Your task to perform on an android device: turn off location Image 0: 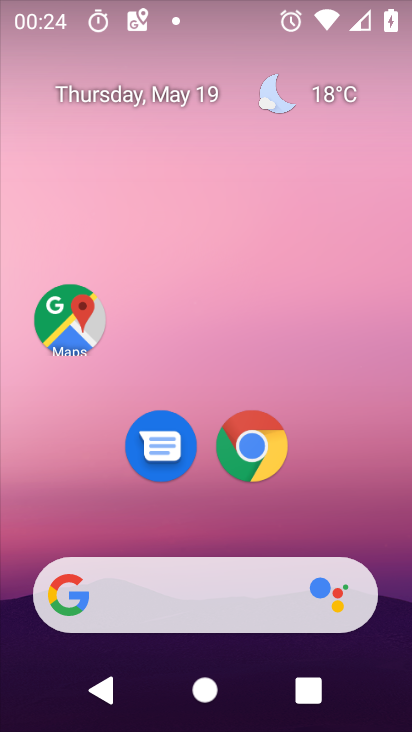
Step 0: drag from (231, 555) to (302, 87)
Your task to perform on an android device: turn off location Image 1: 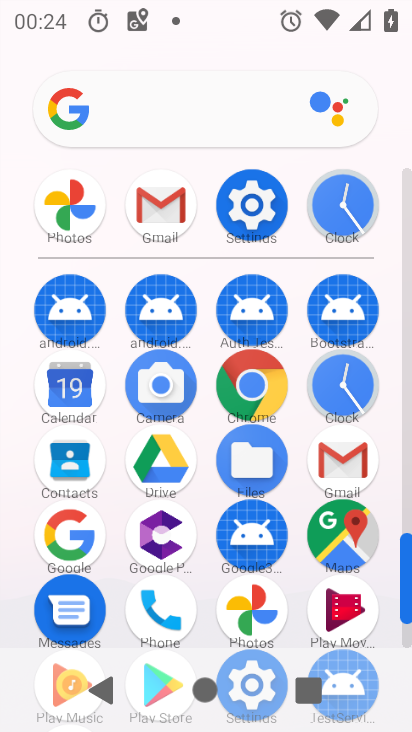
Step 1: click (257, 216)
Your task to perform on an android device: turn off location Image 2: 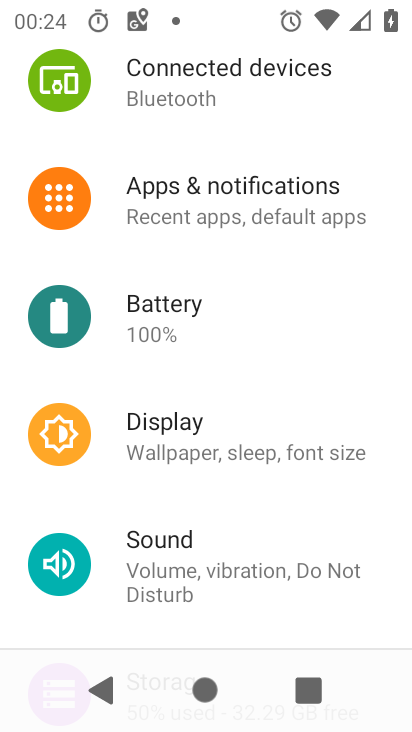
Step 2: drag from (222, 584) to (249, 196)
Your task to perform on an android device: turn off location Image 3: 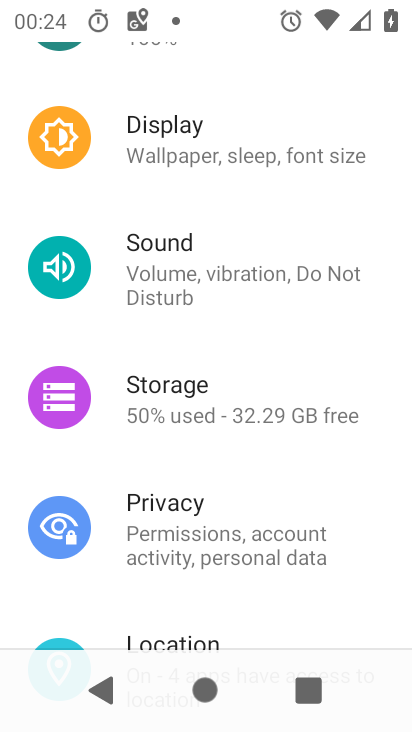
Step 3: drag from (184, 572) to (229, 200)
Your task to perform on an android device: turn off location Image 4: 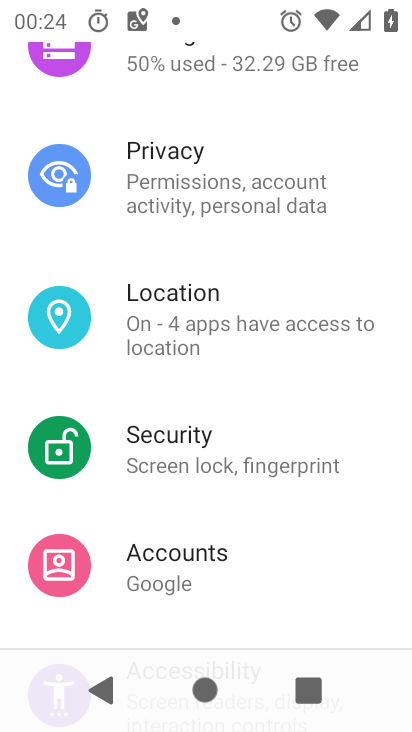
Step 4: click (190, 317)
Your task to perform on an android device: turn off location Image 5: 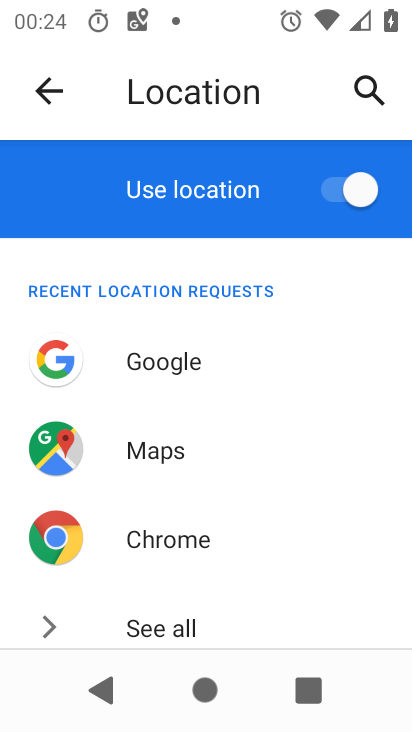
Step 5: drag from (238, 590) to (247, 543)
Your task to perform on an android device: turn off location Image 6: 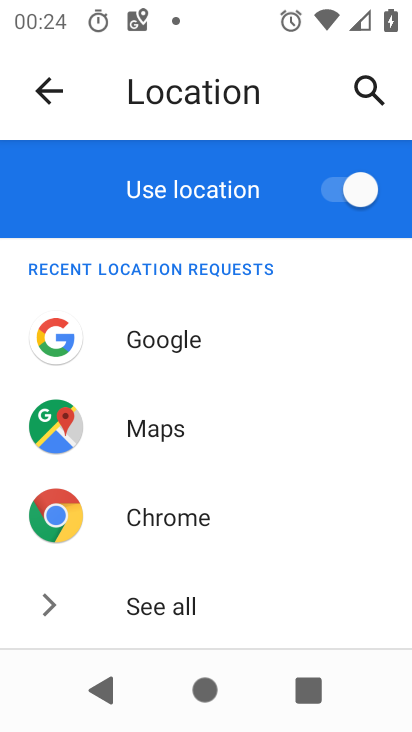
Step 6: click (330, 191)
Your task to perform on an android device: turn off location Image 7: 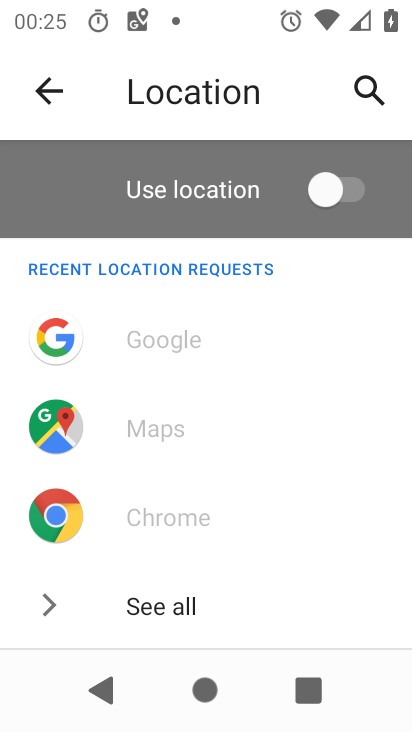
Step 7: task complete